Your task to perform on an android device: What's on my calendar tomorrow? Image 0: 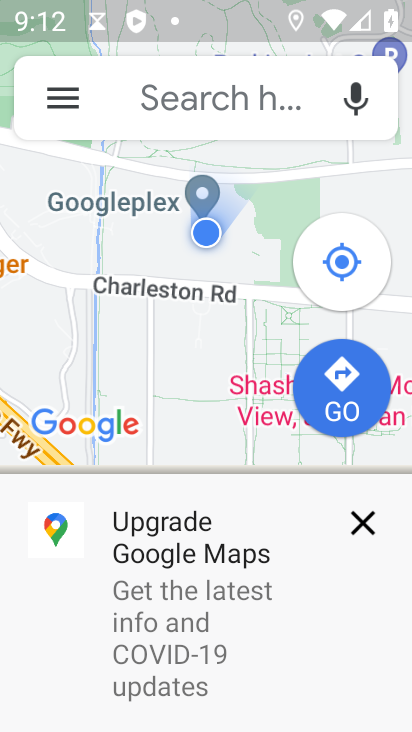
Step 0: press back button
Your task to perform on an android device: What's on my calendar tomorrow? Image 1: 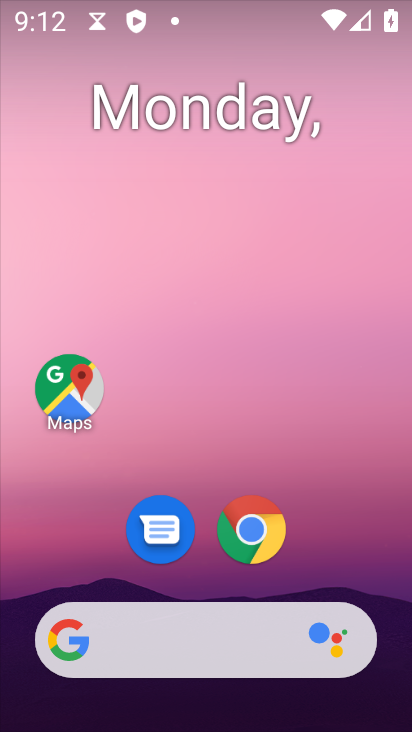
Step 1: drag from (261, 718) to (139, 0)
Your task to perform on an android device: What's on my calendar tomorrow? Image 2: 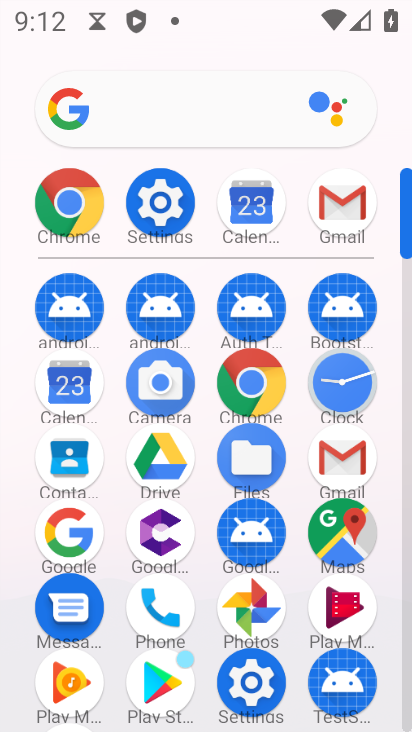
Step 2: click (73, 391)
Your task to perform on an android device: What's on my calendar tomorrow? Image 3: 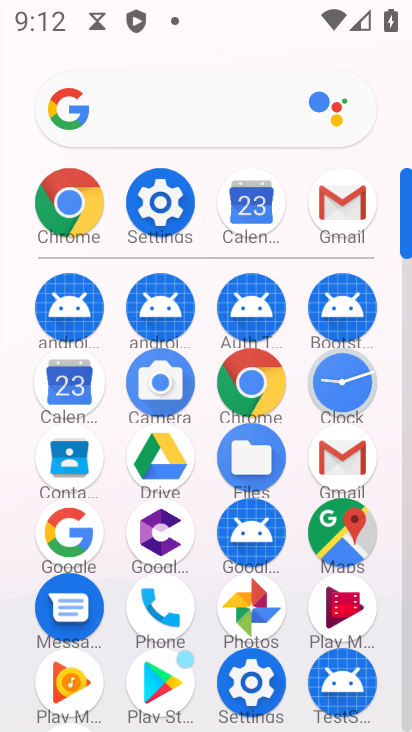
Step 3: click (73, 391)
Your task to perform on an android device: What's on my calendar tomorrow? Image 4: 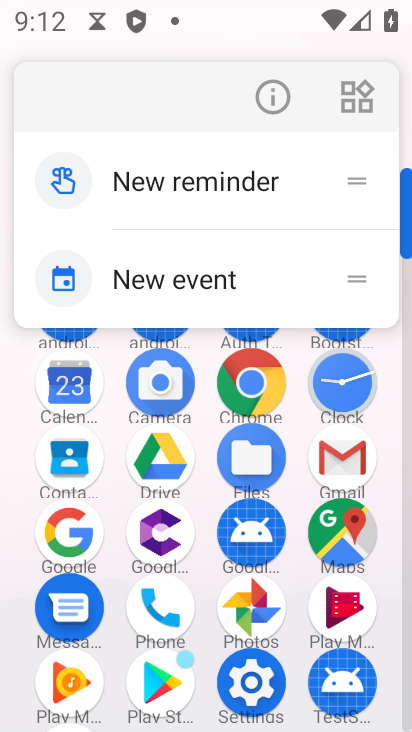
Step 4: click (52, 392)
Your task to perform on an android device: What's on my calendar tomorrow? Image 5: 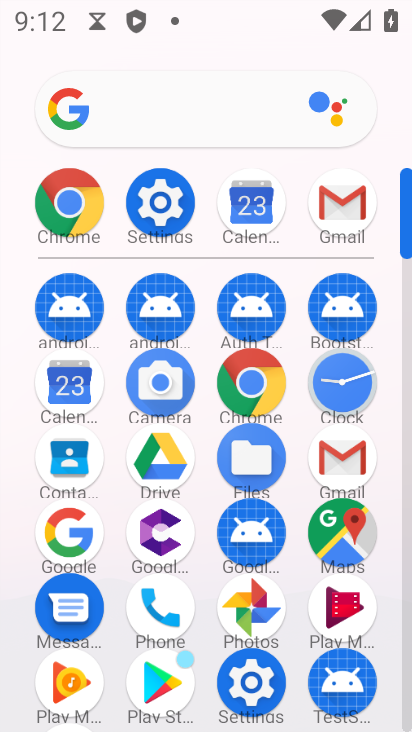
Step 5: click (52, 392)
Your task to perform on an android device: What's on my calendar tomorrow? Image 6: 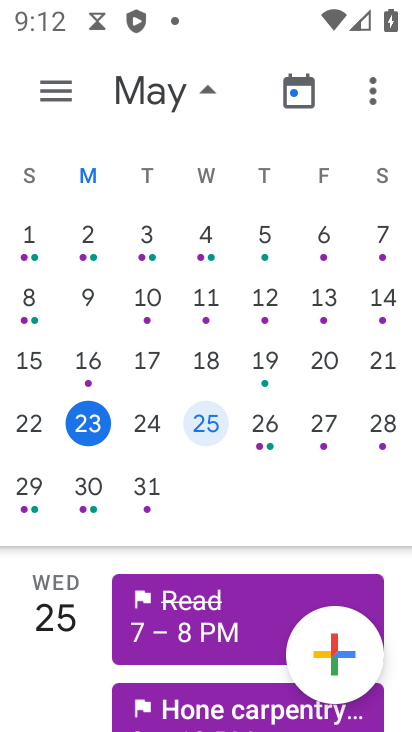
Step 6: click (207, 418)
Your task to perform on an android device: What's on my calendar tomorrow? Image 7: 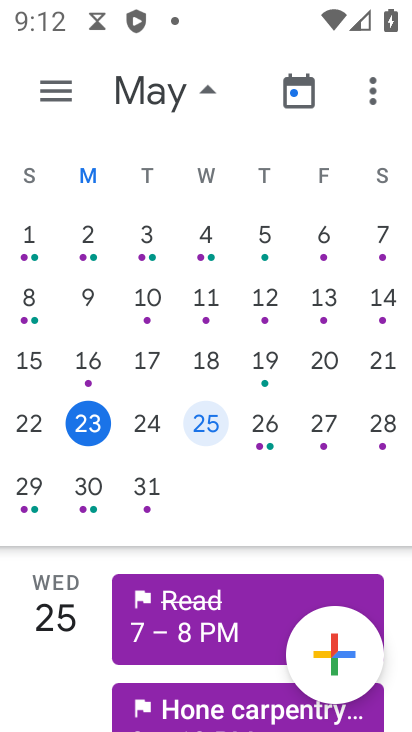
Step 7: click (192, 612)
Your task to perform on an android device: What's on my calendar tomorrow? Image 8: 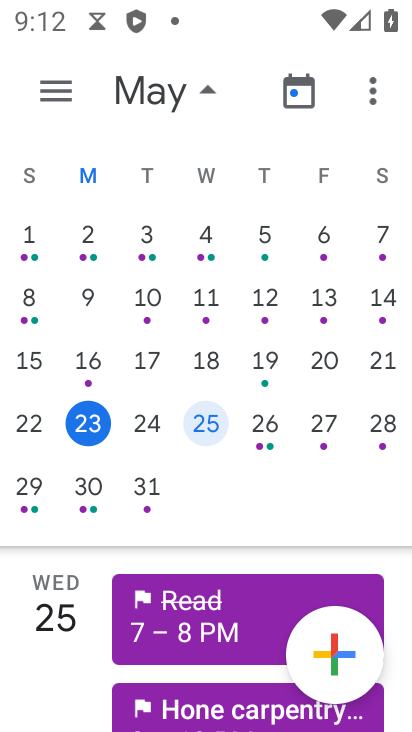
Step 8: click (192, 612)
Your task to perform on an android device: What's on my calendar tomorrow? Image 9: 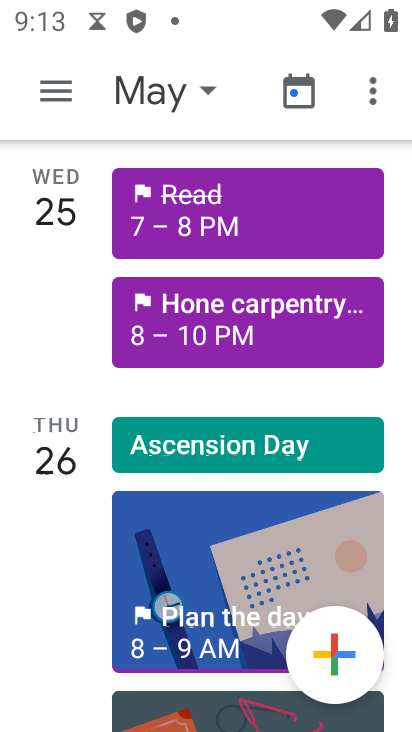
Step 9: task complete